Your task to perform on an android device: check out phone information Image 0: 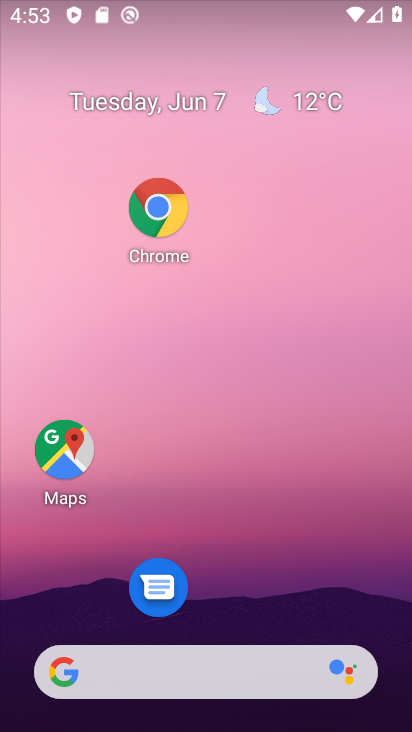
Step 0: drag from (206, 691) to (131, 129)
Your task to perform on an android device: check out phone information Image 1: 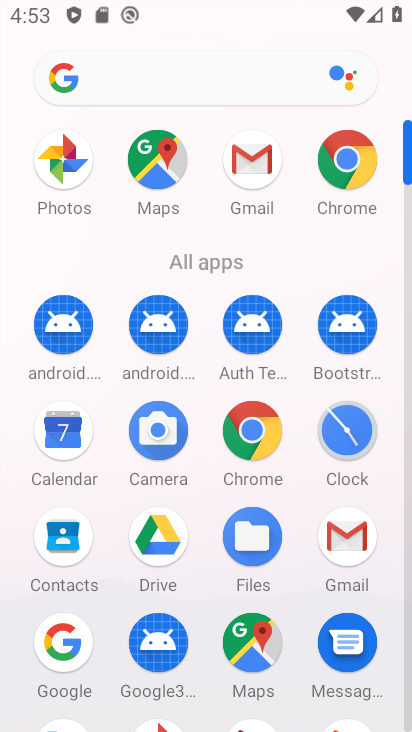
Step 1: drag from (278, 549) to (272, 315)
Your task to perform on an android device: check out phone information Image 2: 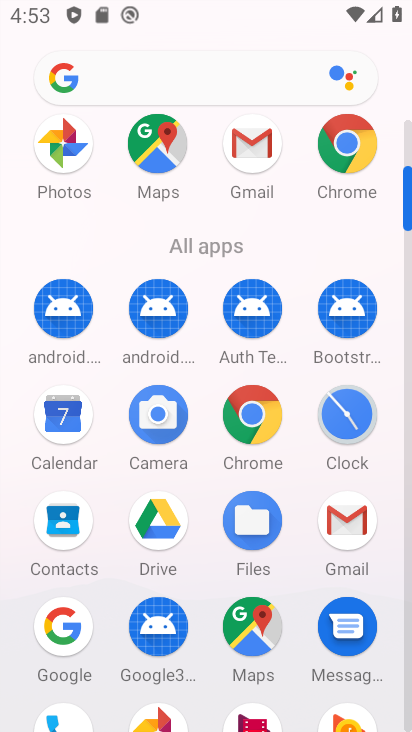
Step 2: drag from (338, 540) to (286, 191)
Your task to perform on an android device: check out phone information Image 3: 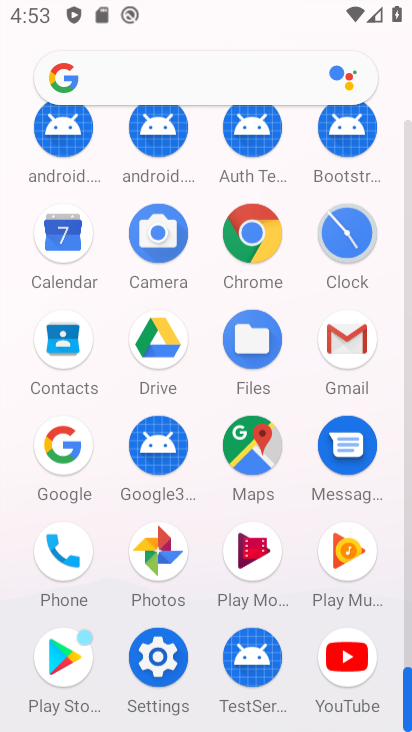
Step 3: drag from (292, 451) to (291, 277)
Your task to perform on an android device: check out phone information Image 4: 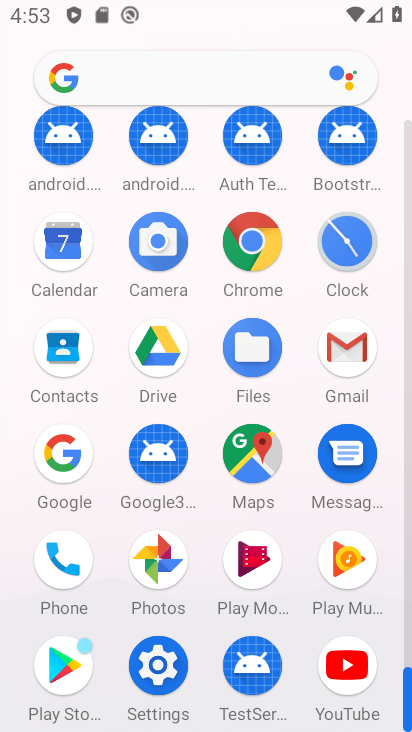
Step 4: drag from (271, 632) to (264, 266)
Your task to perform on an android device: check out phone information Image 5: 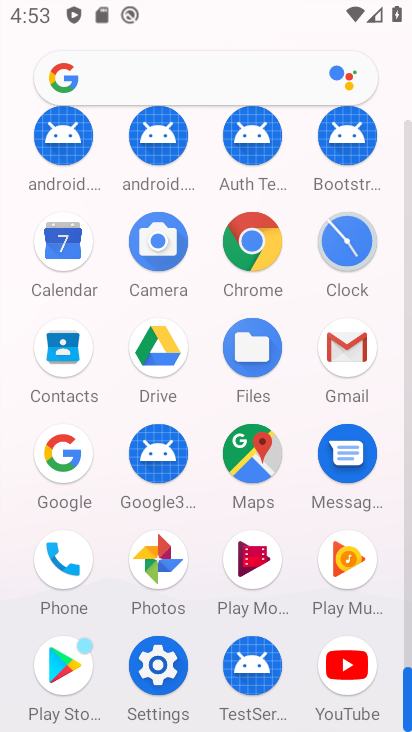
Step 5: click (133, 672)
Your task to perform on an android device: check out phone information Image 6: 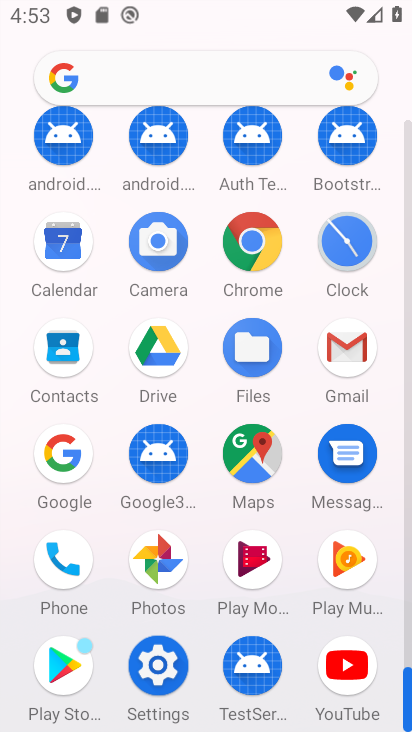
Step 6: click (133, 672)
Your task to perform on an android device: check out phone information Image 7: 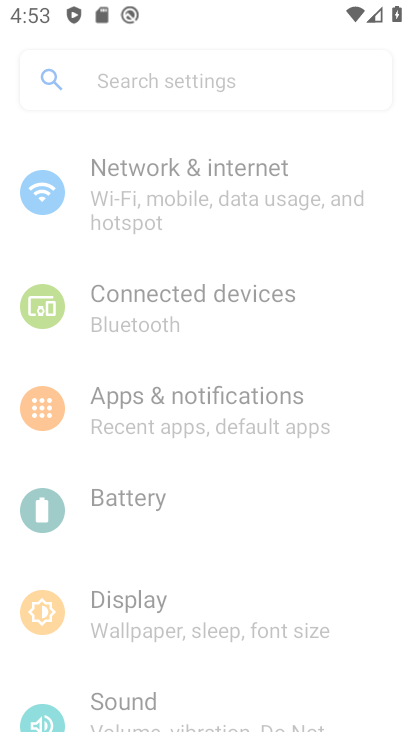
Step 7: click (195, 657)
Your task to perform on an android device: check out phone information Image 8: 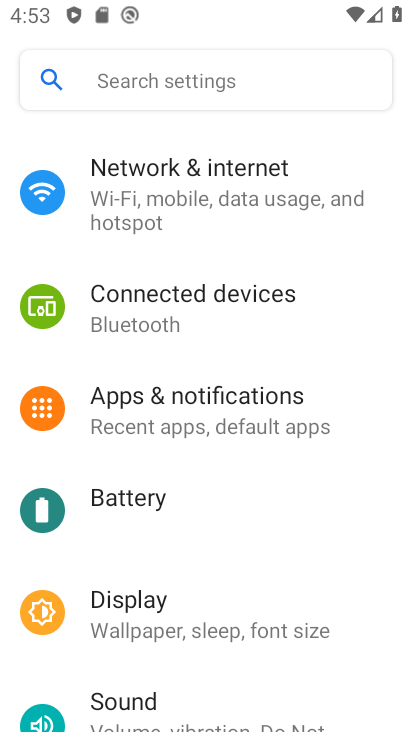
Step 8: click (199, 656)
Your task to perform on an android device: check out phone information Image 9: 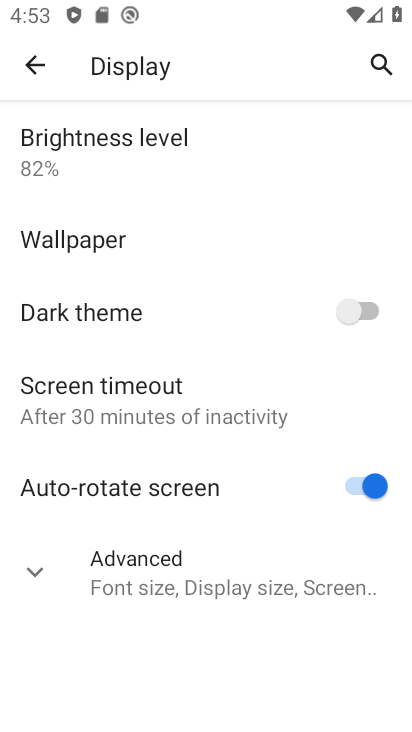
Step 9: drag from (214, 559) to (162, 243)
Your task to perform on an android device: check out phone information Image 10: 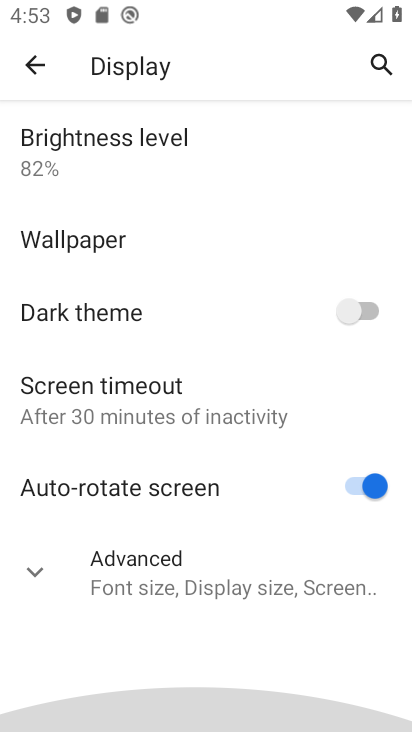
Step 10: drag from (190, 421) to (173, 155)
Your task to perform on an android device: check out phone information Image 11: 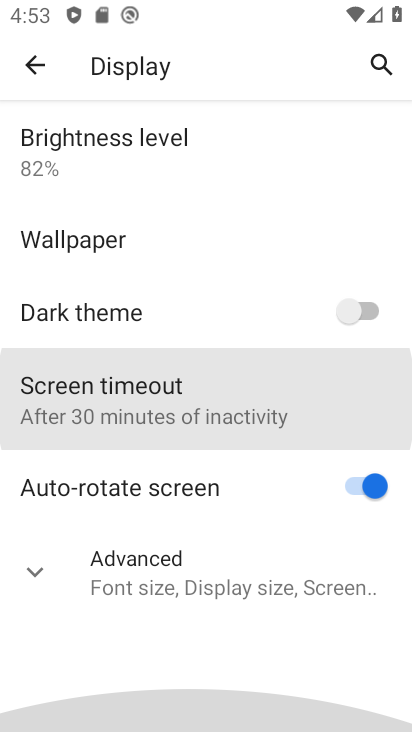
Step 11: drag from (244, 503) to (180, 48)
Your task to perform on an android device: check out phone information Image 12: 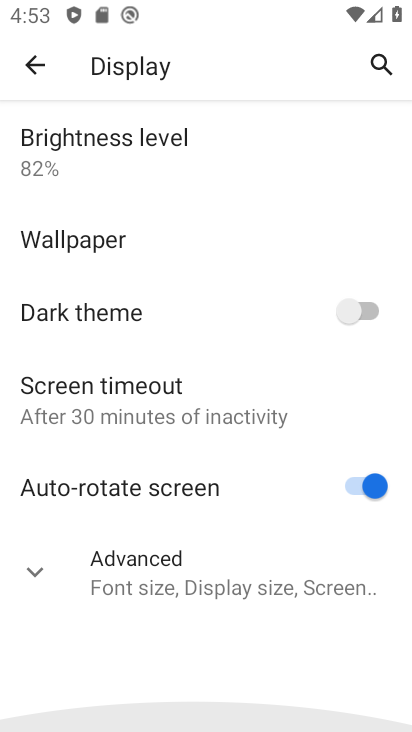
Step 12: drag from (229, 448) to (194, 173)
Your task to perform on an android device: check out phone information Image 13: 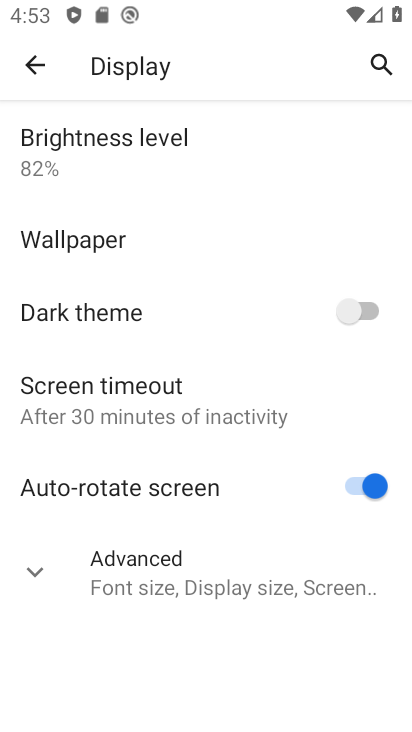
Step 13: click (37, 62)
Your task to perform on an android device: check out phone information Image 14: 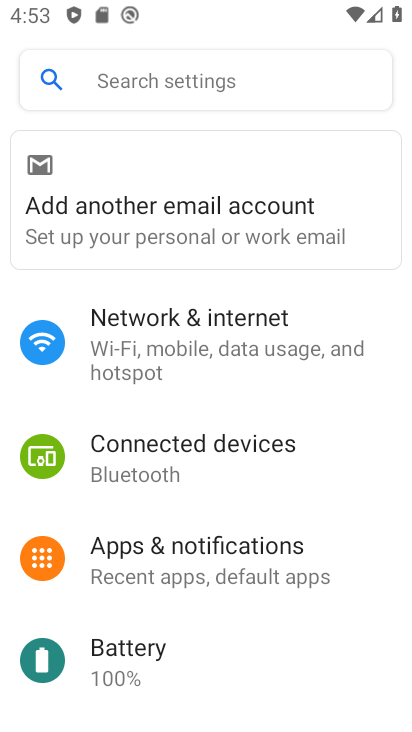
Step 14: click (37, 79)
Your task to perform on an android device: check out phone information Image 15: 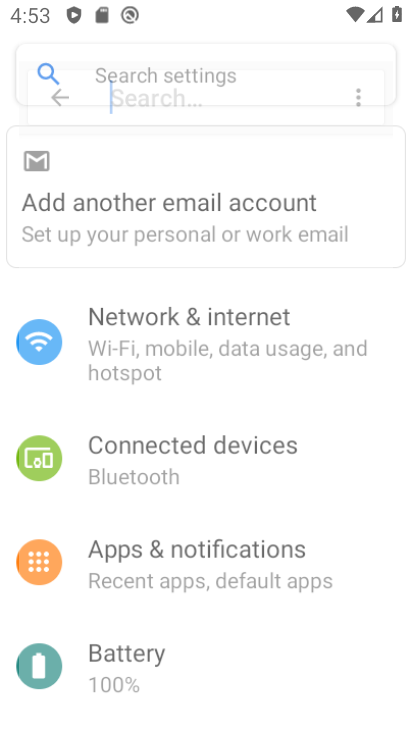
Step 15: click (33, 56)
Your task to perform on an android device: check out phone information Image 16: 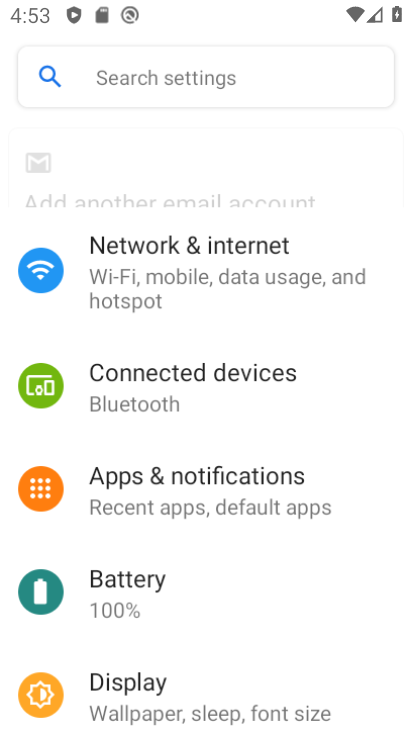
Step 16: click (31, 47)
Your task to perform on an android device: check out phone information Image 17: 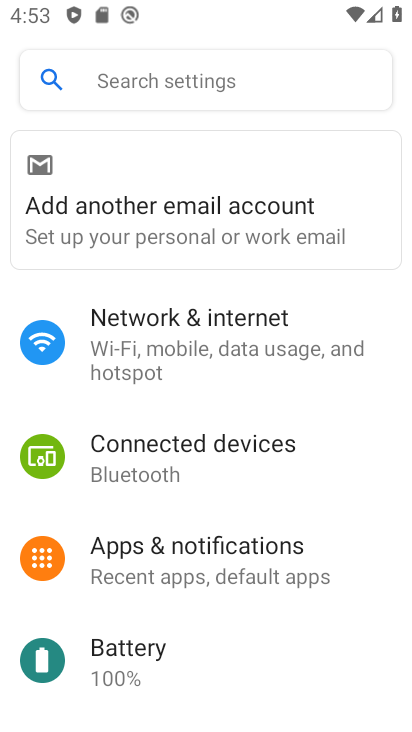
Step 17: drag from (188, 440) to (159, 159)
Your task to perform on an android device: check out phone information Image 18: 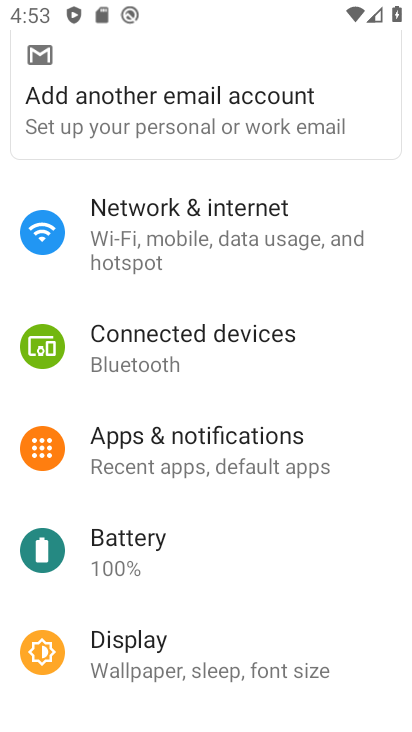
Step 18: drag from (218, 566) to (177, 168)
Your task to perform on an android device: check out phone information Image 19: 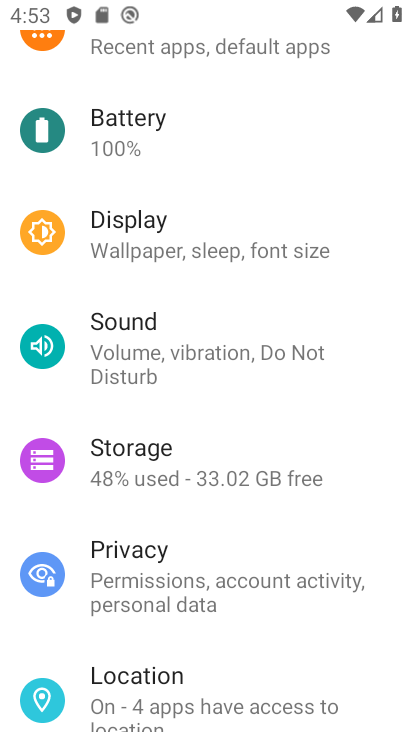
Step 19: drag from (172, 541) to (152, 167)
Your task to perform on an android device: check out phone information Image 20: 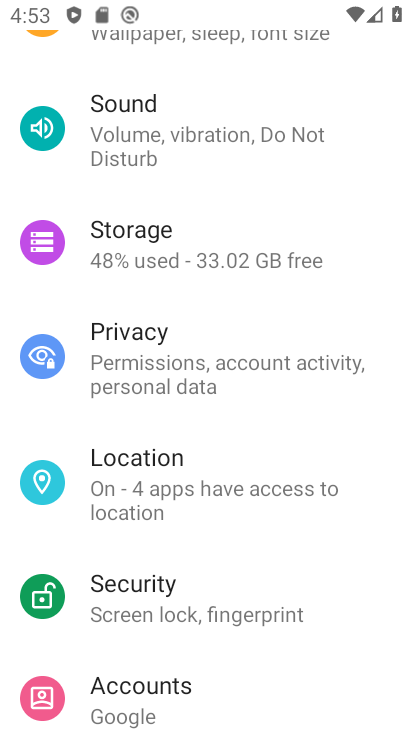
Step 20: drag from (200, 577) to (133, 97)
Your task to perform on an android device: check out phone information Image 21: 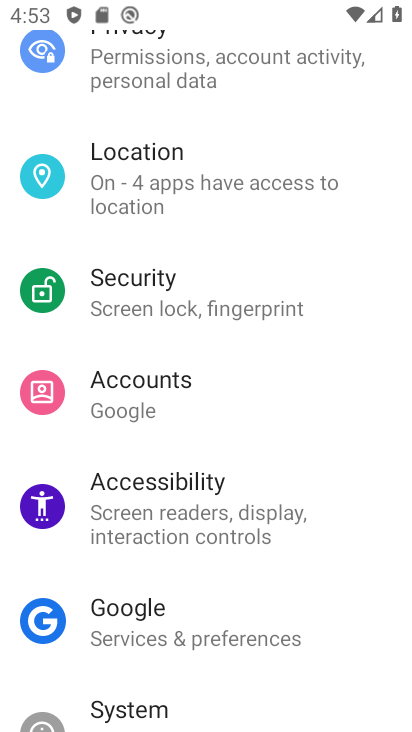
Step 21: drag from (171, 429) to (142, 121)
Your task to perform on an android device: check out phone information Image 22: 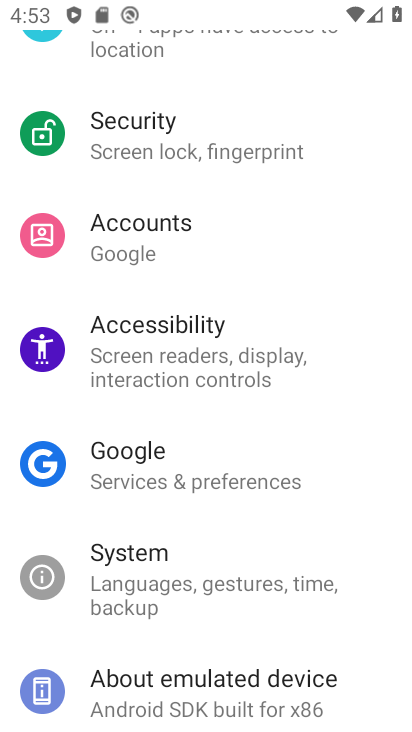
Step 22: drag from (222, 476) to (172, 126)
Your task to perform on an android device: check out phone information Image 23: 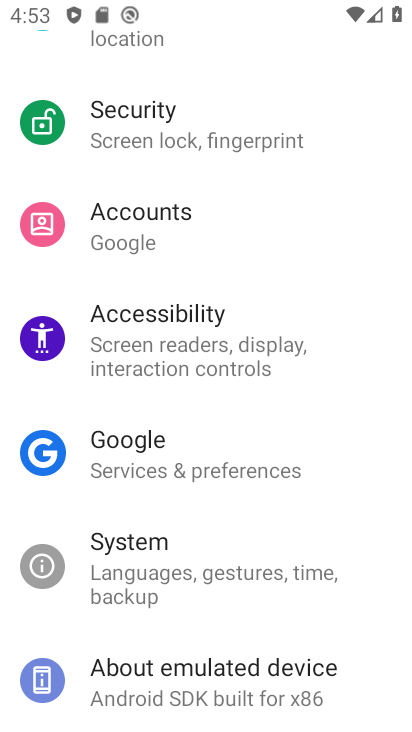
Step 23: click (201, 682)
Your task to perform on an android device: check out phone information Image 24: 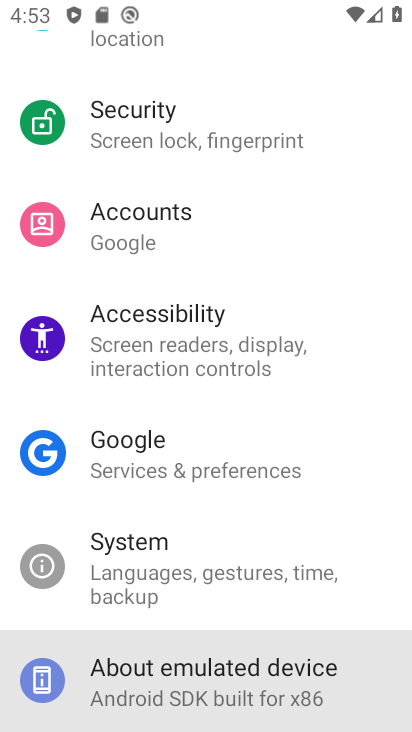
Step 24: click (201, 682)
Your task to perform on an android device: check out phone information Image 25: 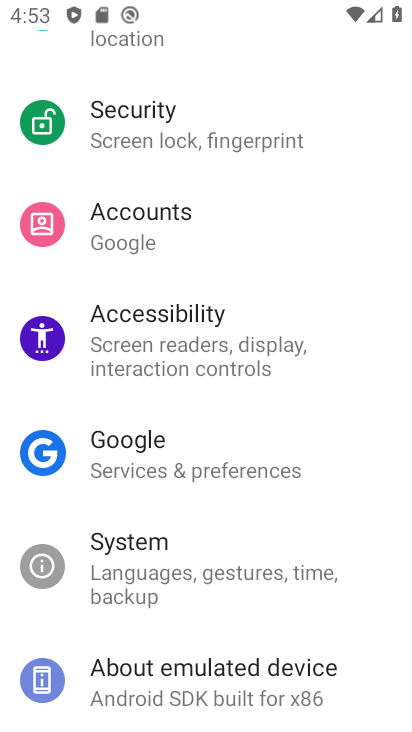
Step 25: click (201, 682)
Your task to perform on an android device: check out phone information Image 26: 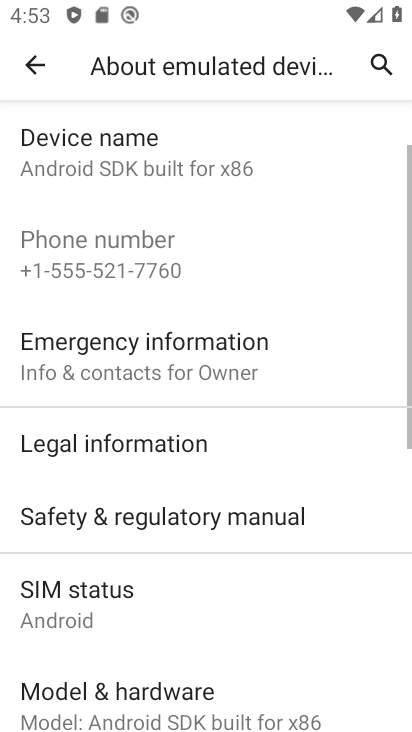
Step 26: click (199, 681)
Your task to perform on an android device: check out phone information Image 27: 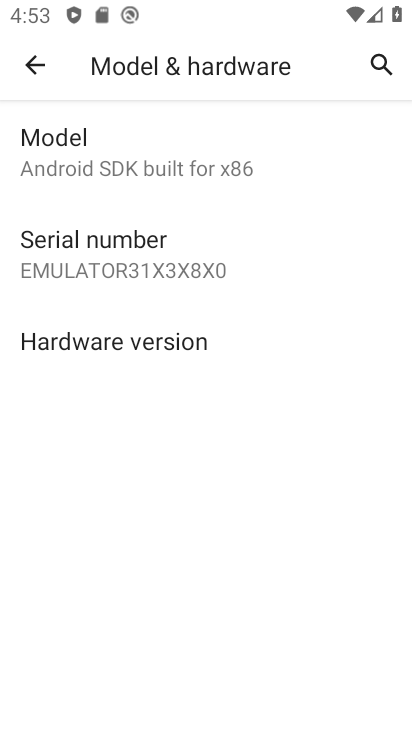
Step 27: task complete